Your task to perform on an android device: Go to network settings Image 0: 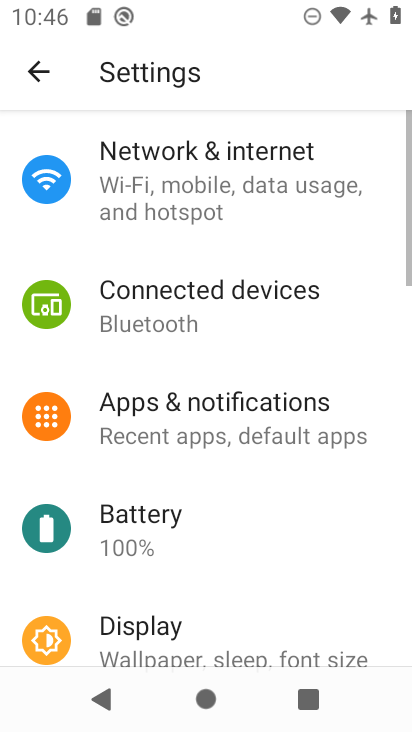
Step 0: click (209, 174)
Your task to perform on an android device: Go to network settings Image 1: 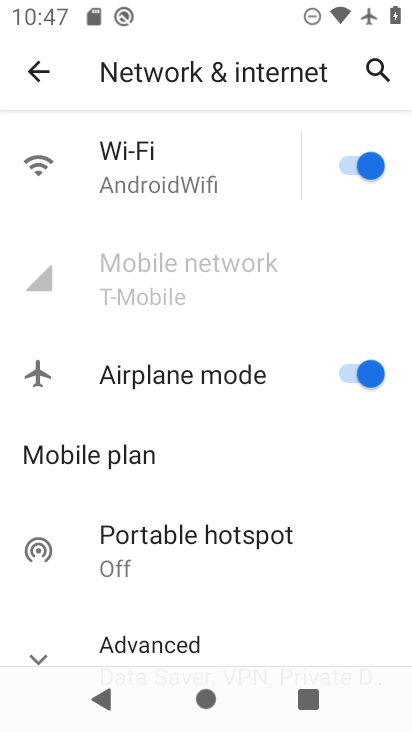
Step 1: drag from (111, 598) to (172, 290)
Your task to perform on an android device: Go to network settings Image 2: 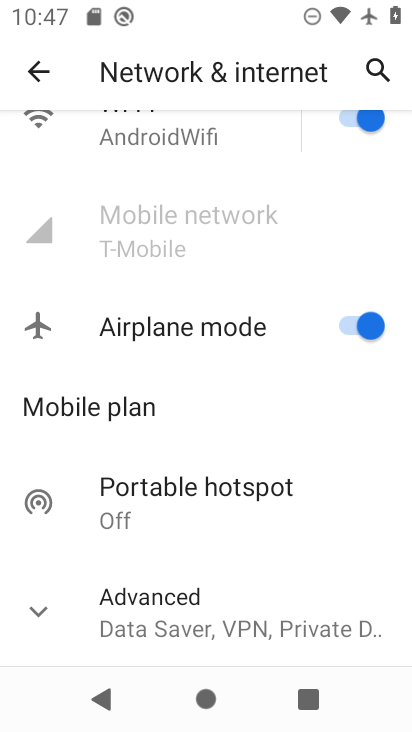
Step 2: click (28, 619)
Your task to perform on an android device: Go to network settings Image 3: 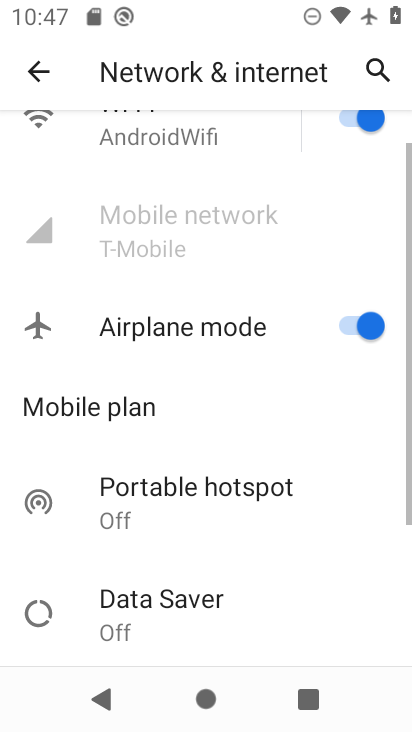
Step 3: task complete